Your task to perform on an android device: When is my next appointment? Image 0: 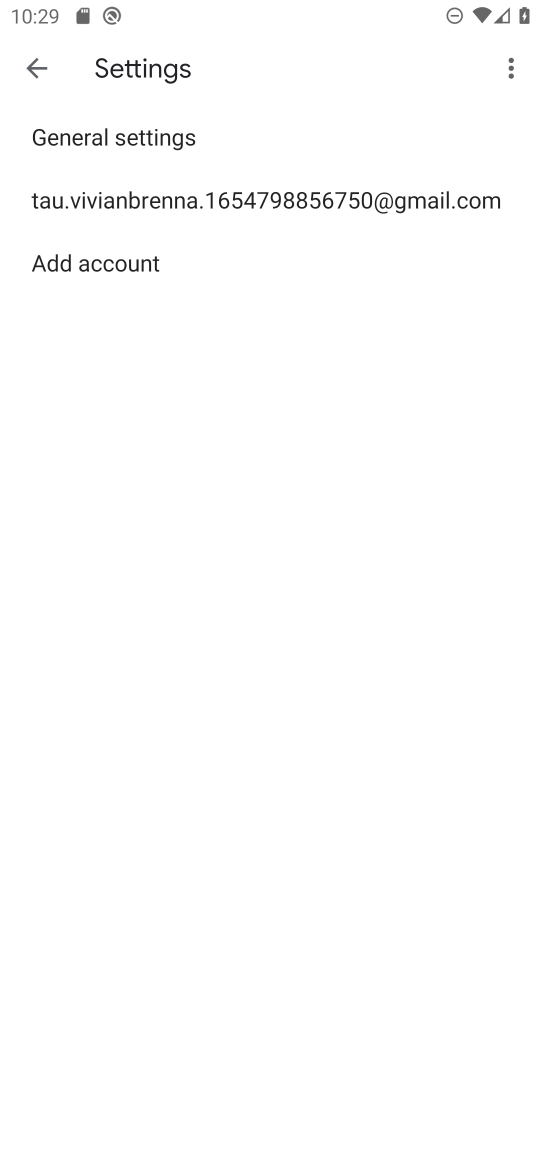
Step 0: press home button
Your task to perform on an android device: When is my next appointment? Image 1: 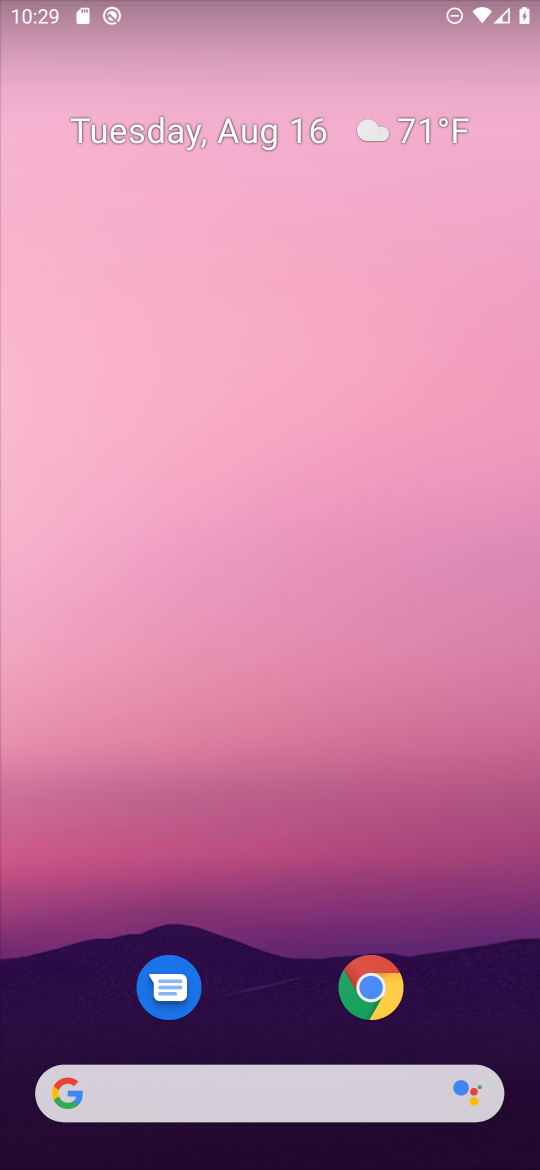
Step 1: drag from (30, 1110) to (291, 497)
Your task to perform on an android device: When is my next appointment? Image 2: 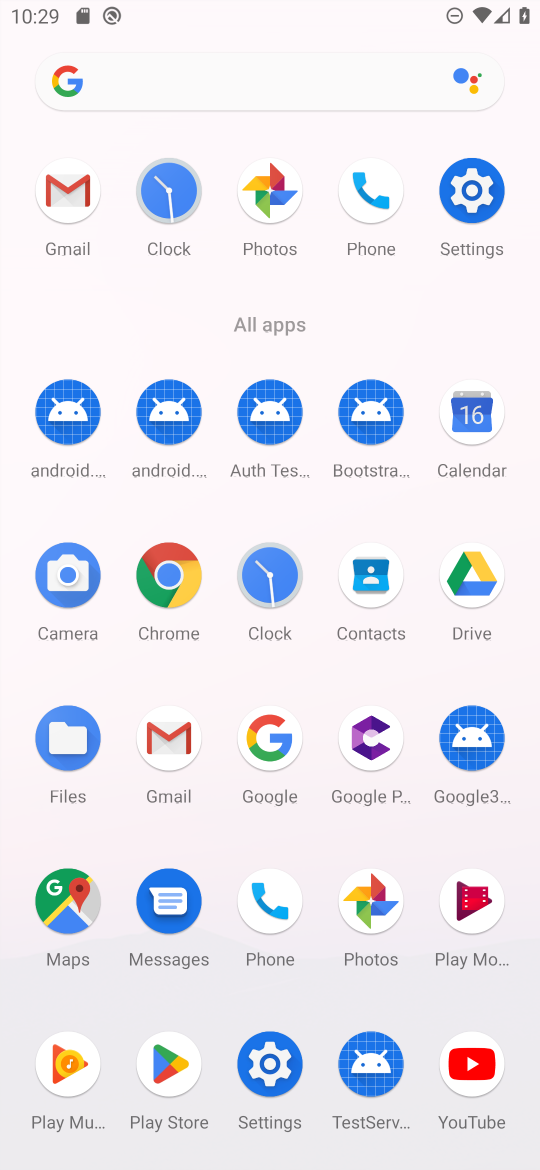
Step 2: click (467, 434)
Your task to perform on an android device: When is my next appointment? Image 3: 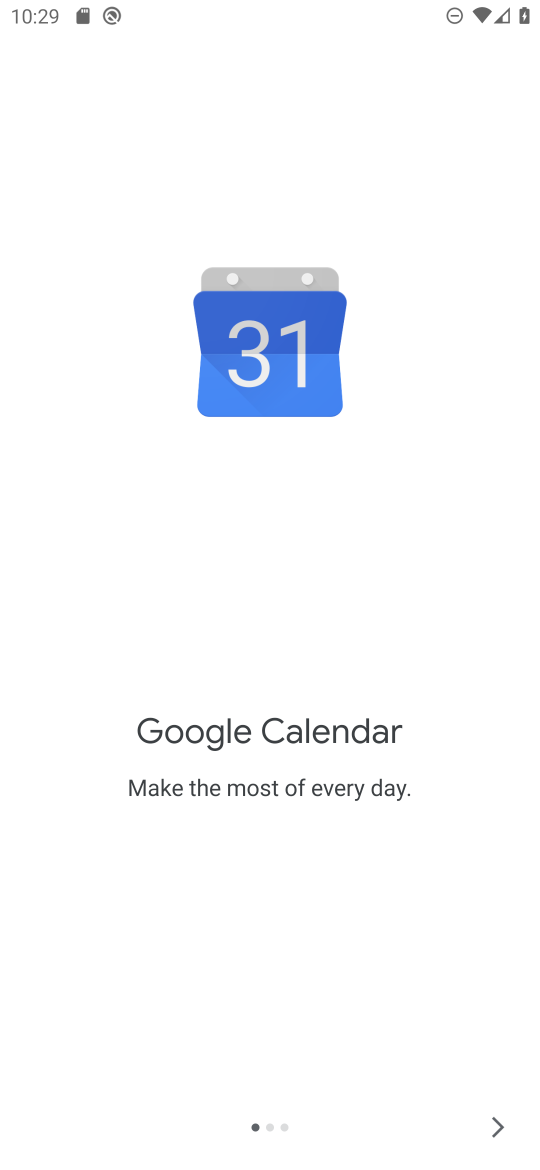
Step 3: click (482, 1128)
Your task to perform on an android device: When is my next appointment? Image 4: 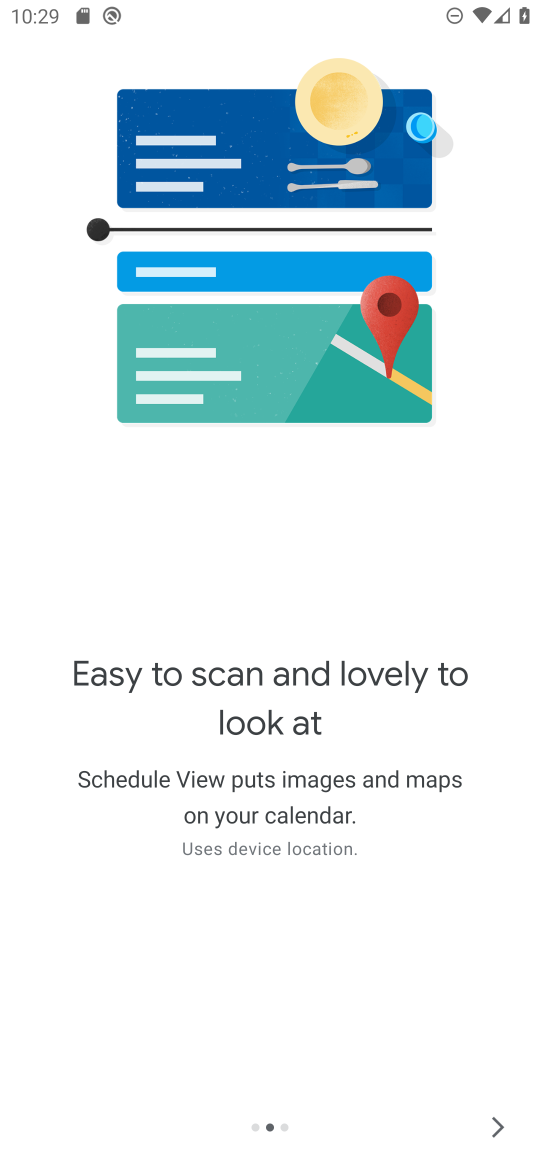
Step 4: click (482, 1128)
Your task to perform on an android device: When is my next appointment? Image 5: 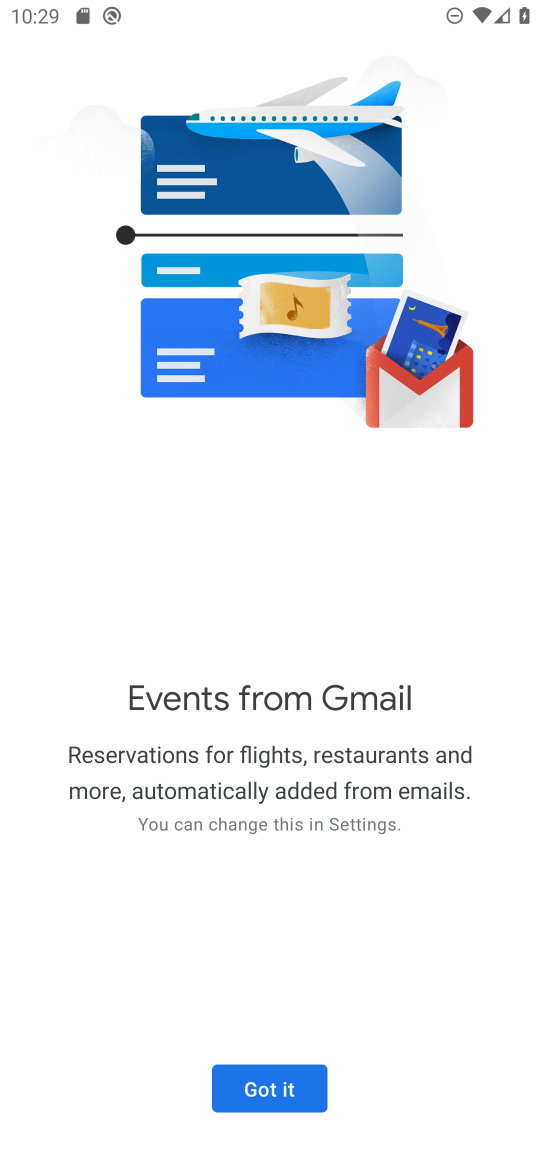
Step 5: click (268, 1075)
Your task to perform on an android device: When is my next appointment? Image 6: 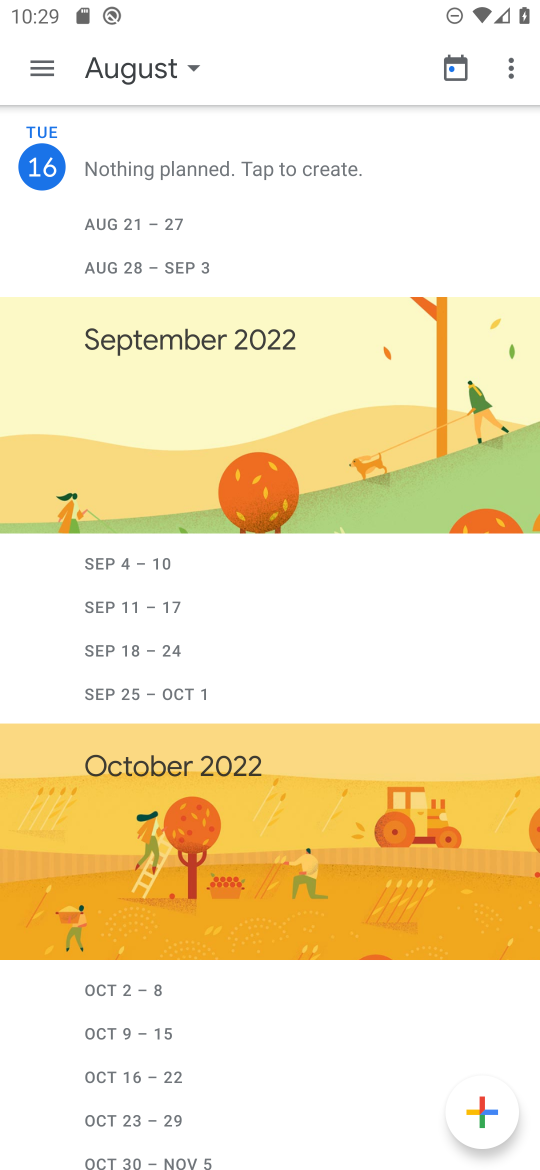
Step 6: click (194, 71)
Your task to perform on an android device: When is my next appointment? Image 7: 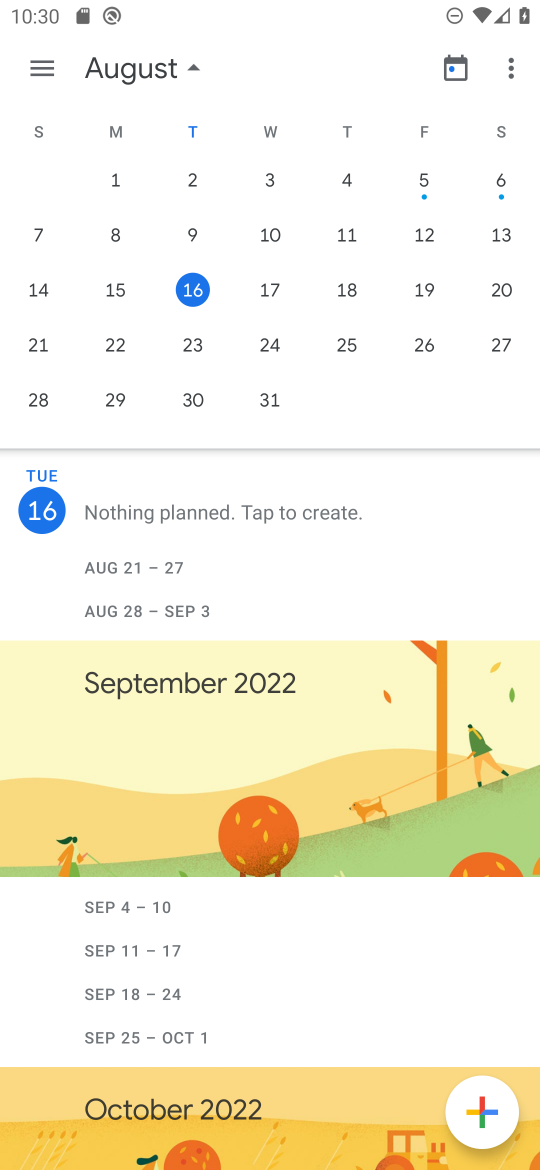
Step 7: task complete